Your task to perform on an android device: turn on wifi Image 0: 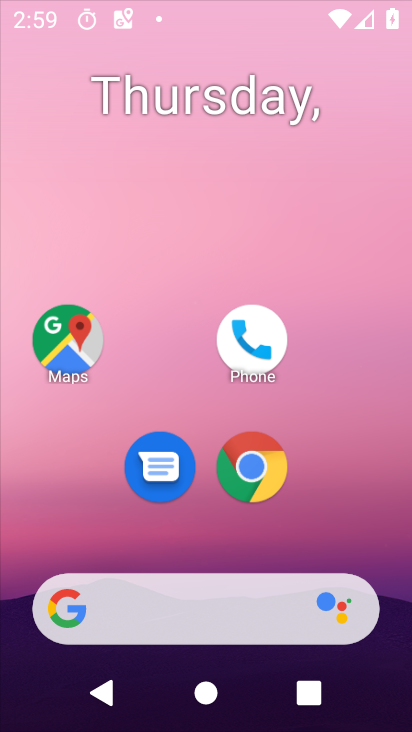
Step 0: click (267, 294)
Your task to perform on an android device: turn on wifi Image 1: 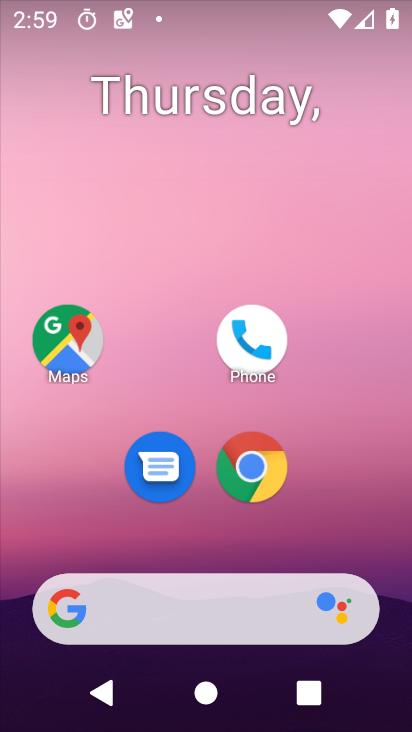
Step 1: drag from (209, 501) to (172, 166)
Your task to perform on an android device: turn on wifi Image 2: 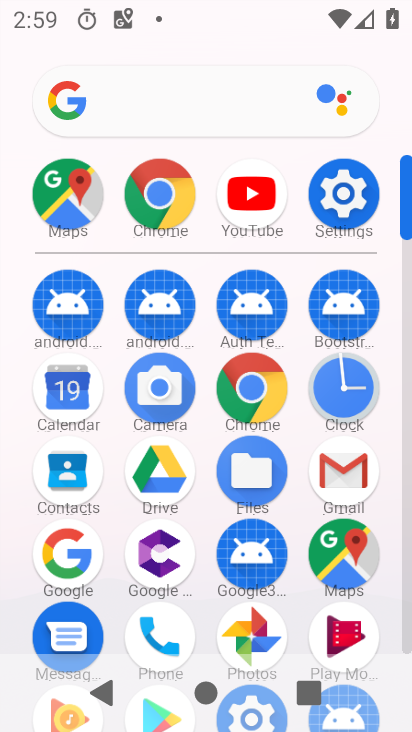
Step 2: drag from (202, 596) to (206, 272)
Your task to perform on an android device: turn on wifi Image 3: 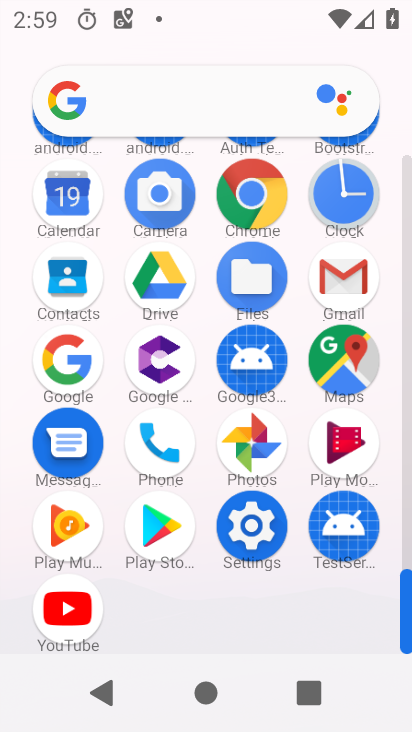
Step 3: click (255, 537)
Your task to perform on an android device: turn on wifi Image 4: 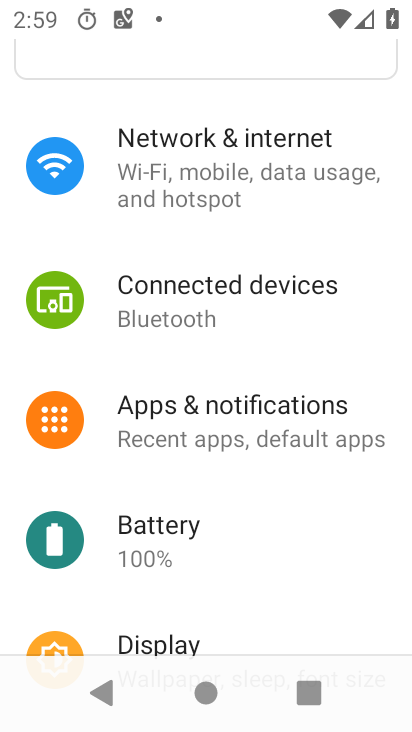
Step 4: drag from (165, 222) to (242, 665)
Your task to perform on an android device: turn on wifi Image 5: 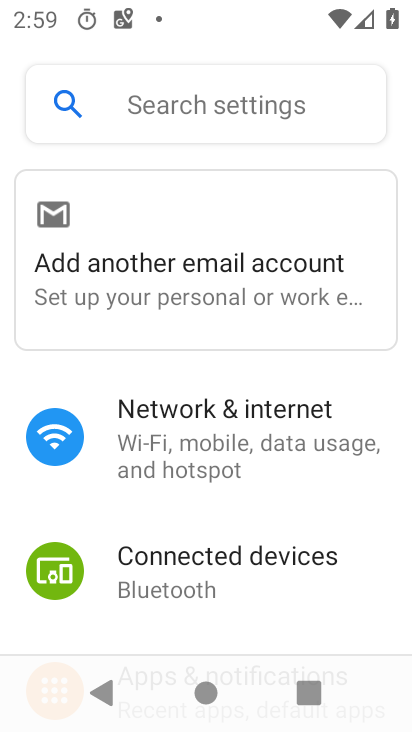
Step 5: click (159, 453)
Your task to perform on an android device: turn on wifi Image 6: 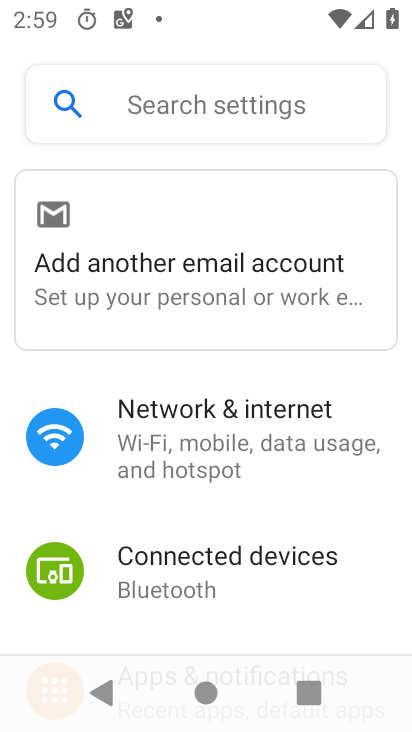
Step 6: click (158, 453)
Your task to perform on an android device: turn on wifi Image 7: 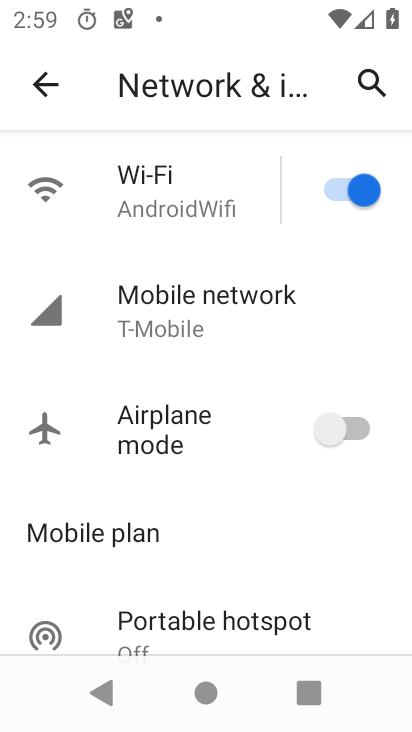
Step 7: click (192, 186)
Your task to perform on an android device: turn on wifi Image 8: 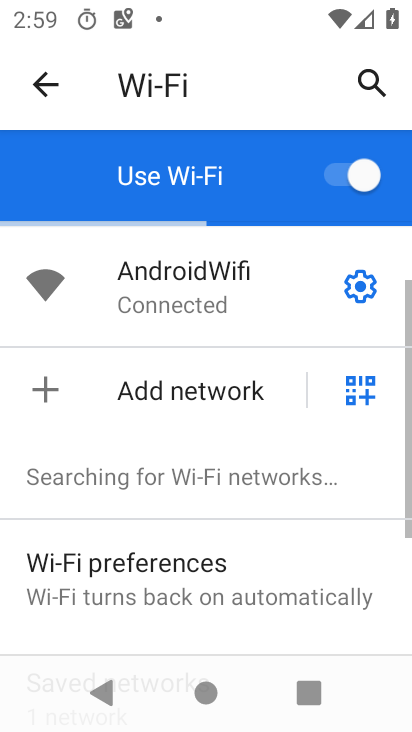
Step 8: task complete